Your task to perform on an android device: Open the calendar app, open the side menu, and click the "Day" option Image 0: 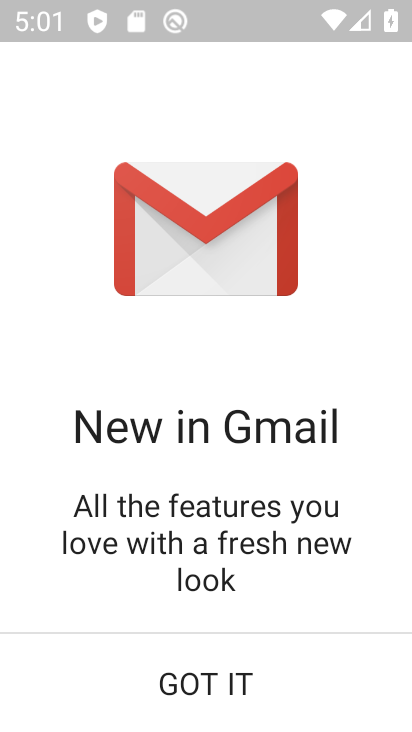
Step 0: press home button
Your task to perform on an android device: Open the calendar app, open the side menu, and click the "Day" option Image 1: 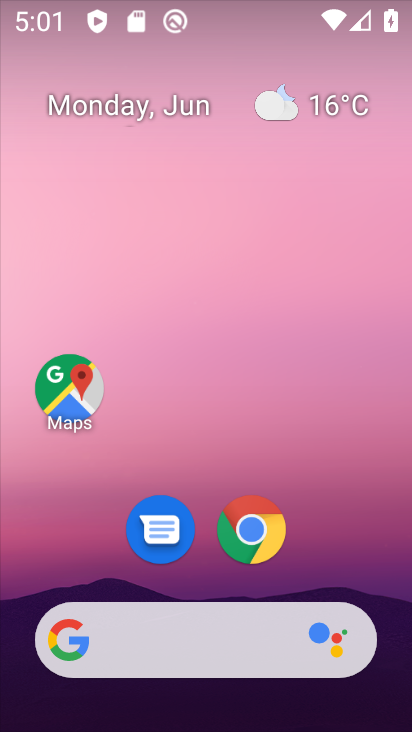
Step 1: drag from (394, 587) to (223, 95)
Your task to perform on an android device: Open the calendar app, open the side menu, and click the "Day" option Image 2: 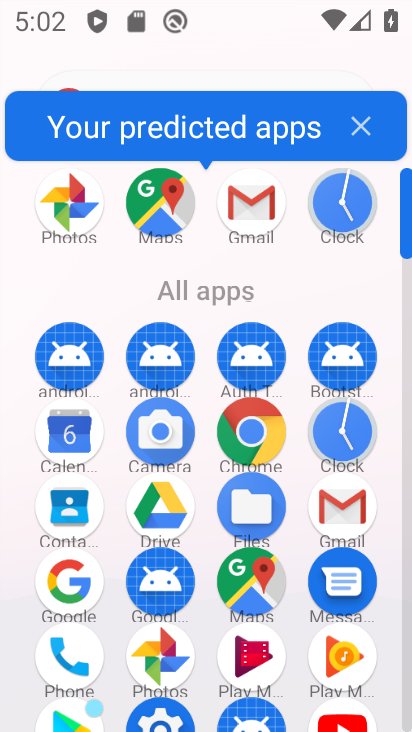
Step 2: click (66, 430)
Your task to perform on an android device: Open the calendar app, open the side menu, and click the "Day" option Image 3: 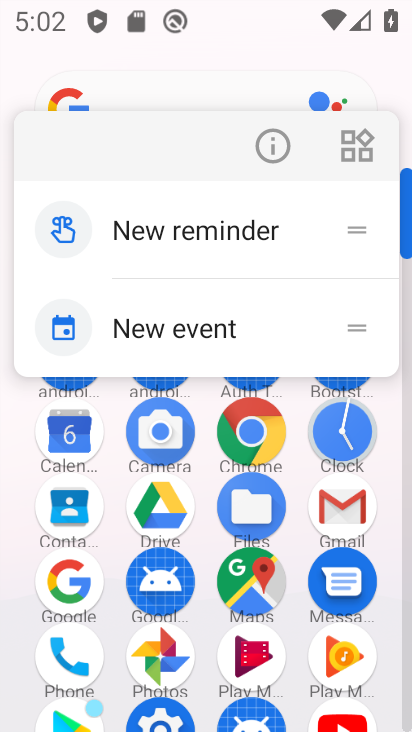
Step 3: click (62, 432)
Your task to perform on an android device: Open the calendar app, open the side menu, and click the "Day" option Image 4: 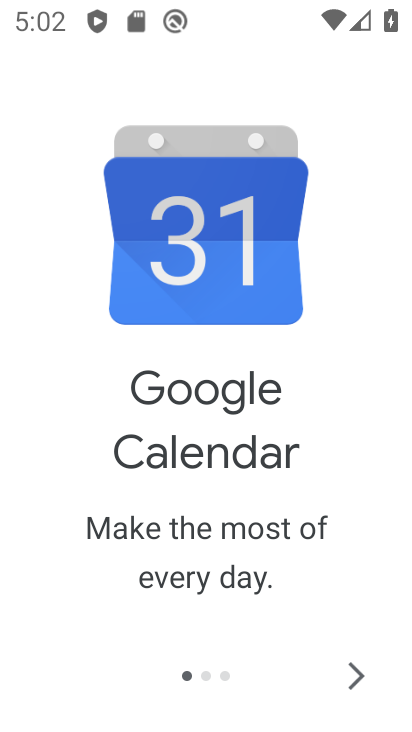
Step 4: click (359, 699)
Your task to perform on an android device: Open the calendar app, open the side menu, and click the "Day" option Image 5: 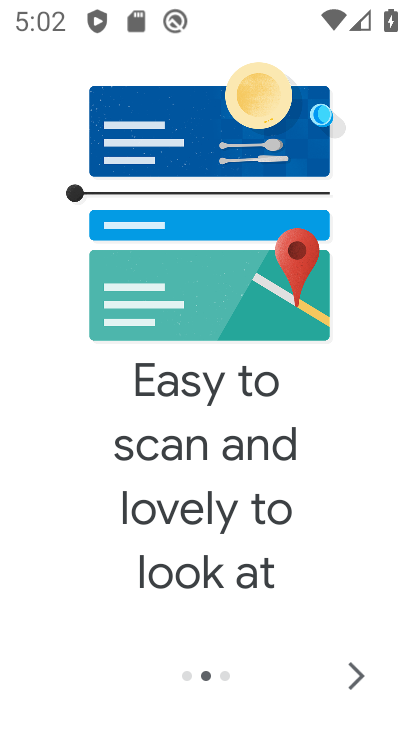
Step 5: click (359, 699)
Your task to perform on an android device: Open the calendar app, open the side menu, and click the "Day" option Image 6: 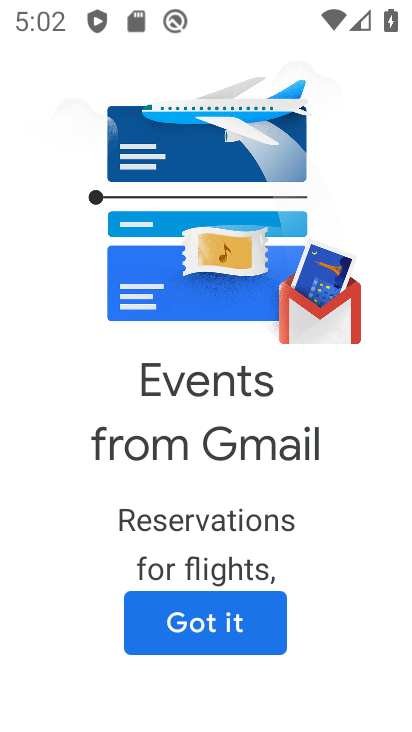
Step 6: click (269, 655)
Your task to perform on an android device: Open the calendar app, open the side menu, and click the "Day" option Image 7: 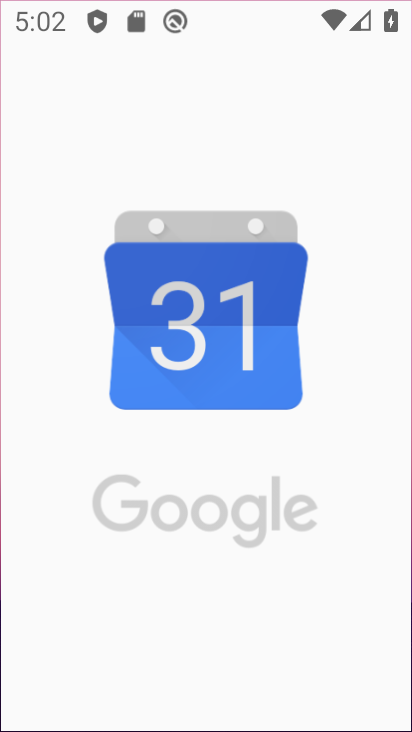
Step 7: click (262, 645)
Your task to perform on an android device: Open the calendar app, open the side menu, and click the "Day" option Image 8: 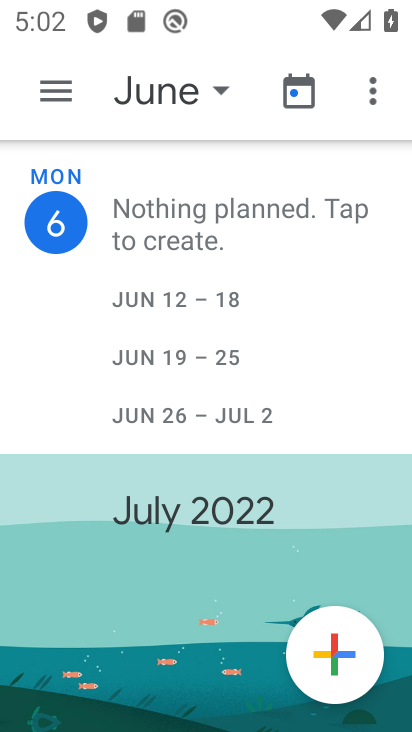
Step 8: click (47, 105)
Your task to perform on an android device: Open the calendar app, open the side menu, and click the "Day" option Image 9: 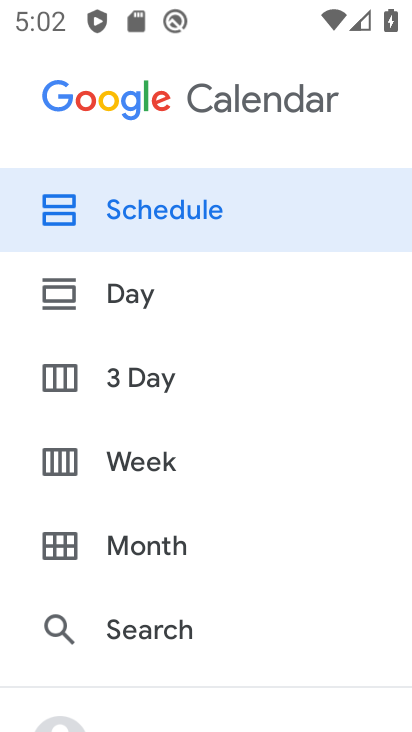
Step 9: click (122, 279)
Your task to perform on an android device: Open the calendar app, open the side menu, and click the "Day" option Image 10: 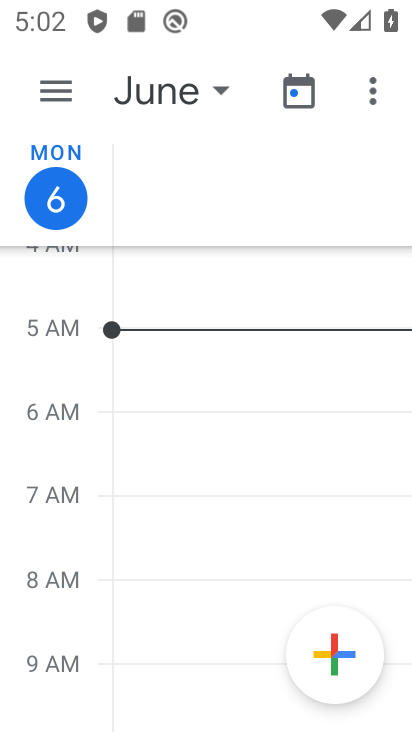
Step 10: task complete